Your task to perform on an android device: Go to Google maps Image 0: 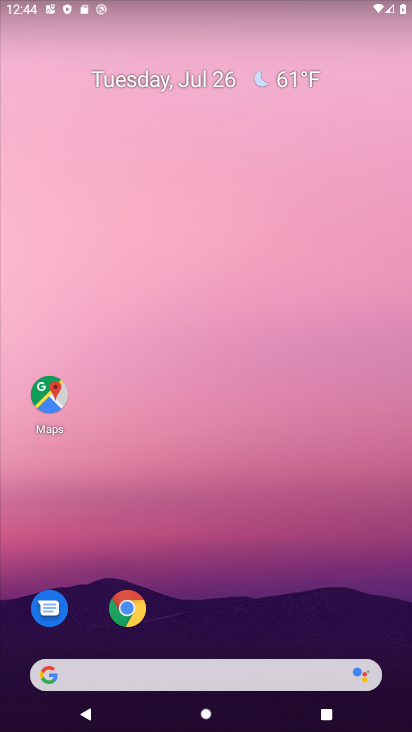
Step 0: drag from (343, 587) to (328, 194)
Your task to perform on an android device: Go to Google maps Image 1: 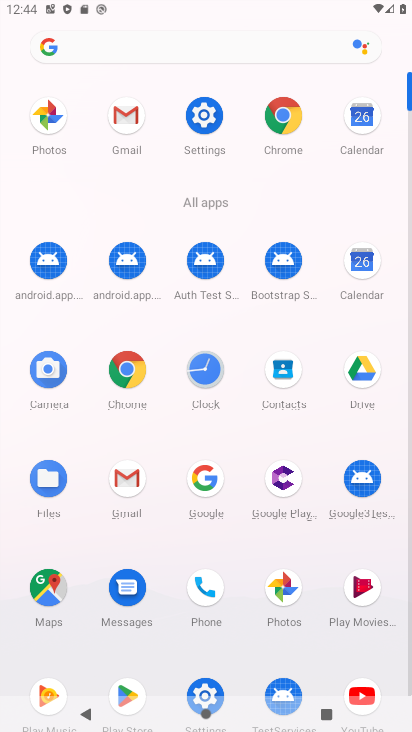
Step 1: click (45, 590)
Your task to perform on an android device: Go to Google maps Image 2: 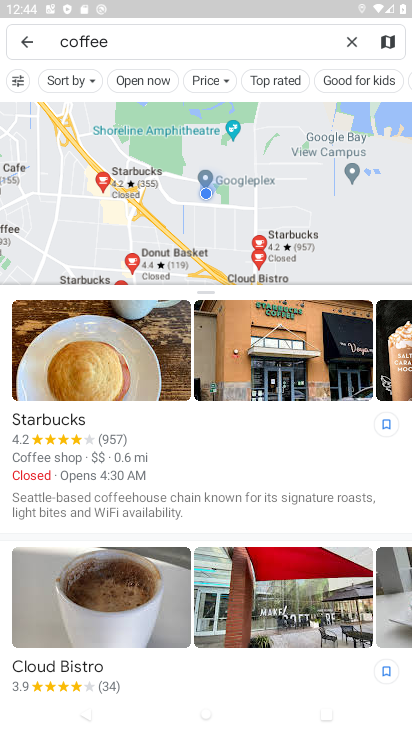
Step 2: task complete